Your task to perform on an android device: Do I have any events tomorrow? Image 0: 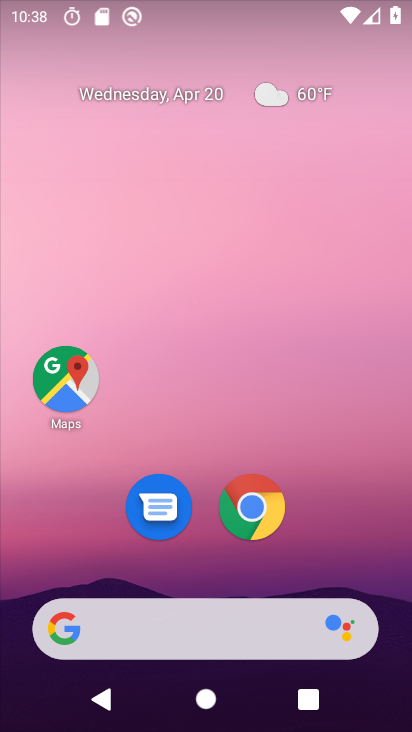
Step 0: drag from (182, 577) to (225, 0)
Your task to perform on an android device: Do I have any events tomorrow? Image 1: 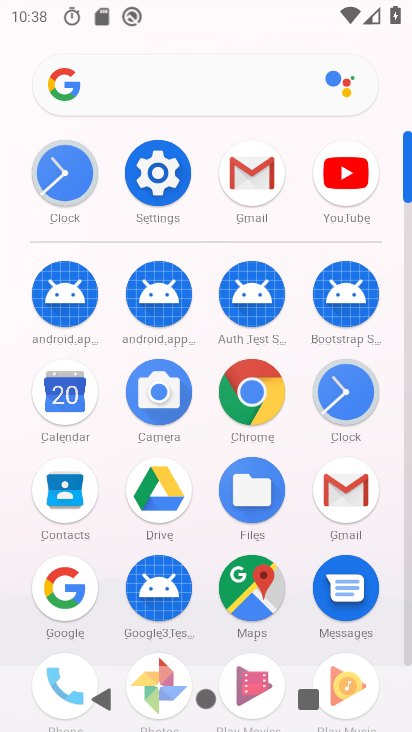
Step 1: click (69, 394)
Your task to perform on an android device: Do I have any events tomorrow? Image 2: 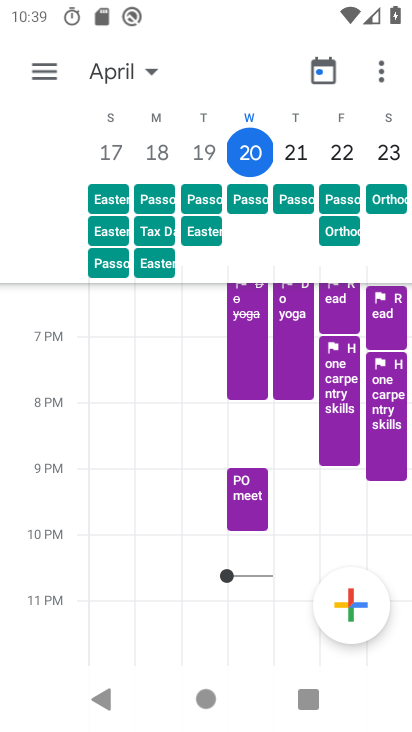
Step 2: click (308, 148)
Your task to perform on an android device: Do I have any events tomorrow? Image 3: 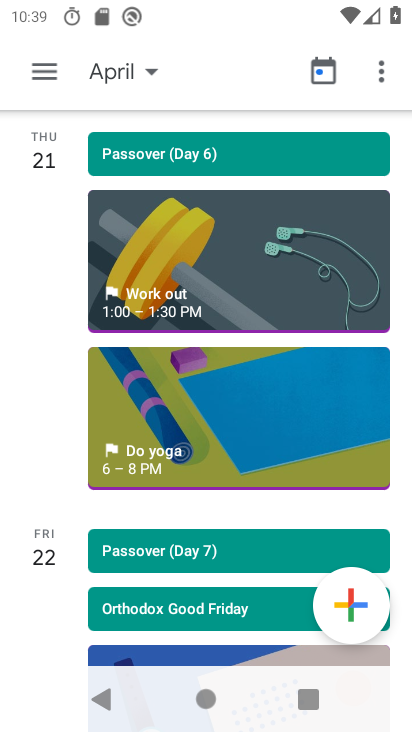
Step 3: click (157, 77)
Your task to perform on an android device: Do I have any events tomorrow? Image 4: 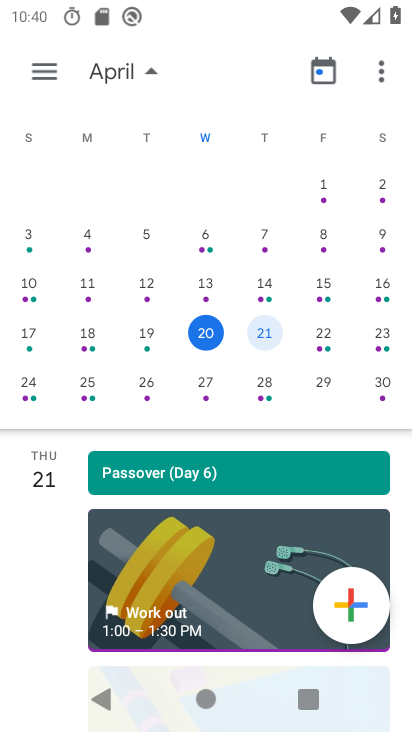
Step 4: click (265, 337)
Your task to perform on an android device: Do I have any events tomorrow? Image 5: 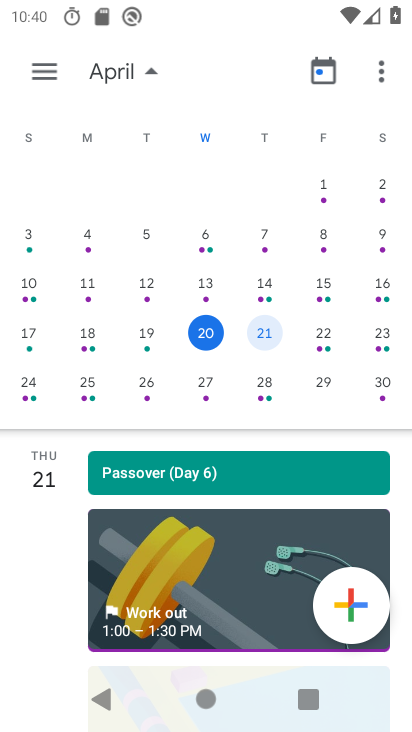
Step 5: click (318, 345)
Your task to perform on an android device: Do I have any events tomorrow? Image 6: 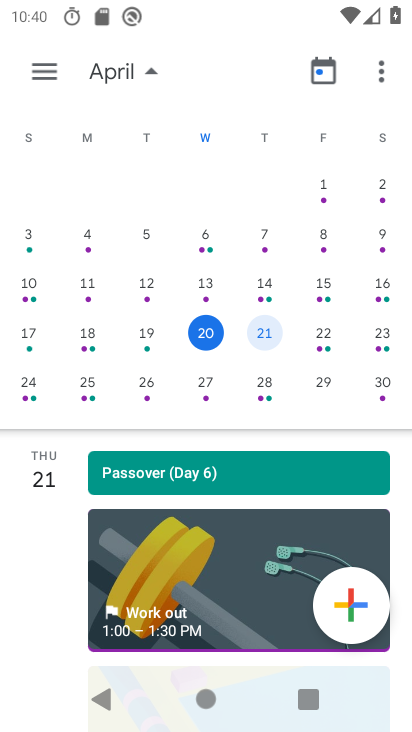
Step 6: task complete